Your task to perform on an android device: turn off sleep mode Image 0: 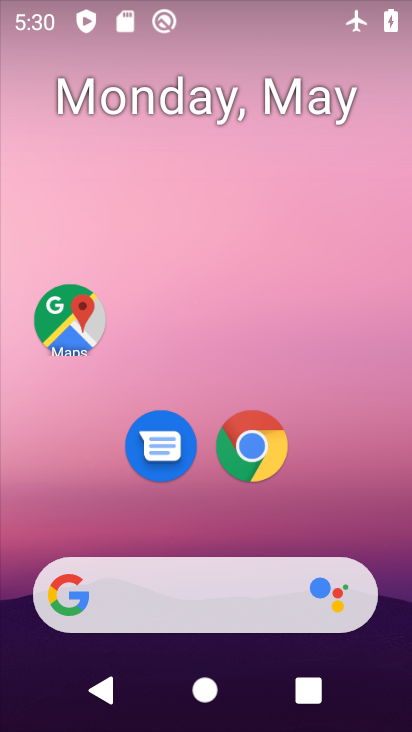
Step 0: drag from (332, 503) to (214, 132)
Your task to perform on an android device: turn off sleep mode Image 1: 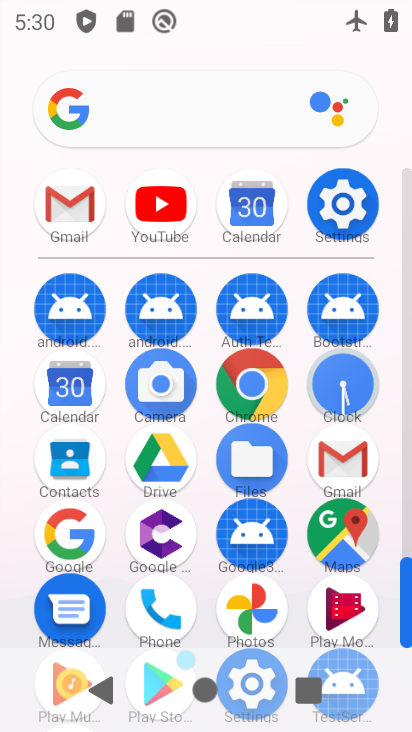
Step 1: click (338, 206)
Your task to perform on an android device: turn off sleep mode Image 2: 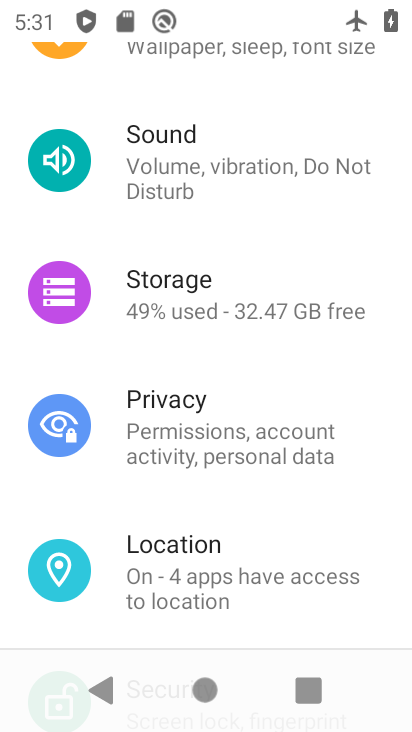
Step 2: click (164, 146)
Your task to perform on an android device: turn off sleep mode Image 3: 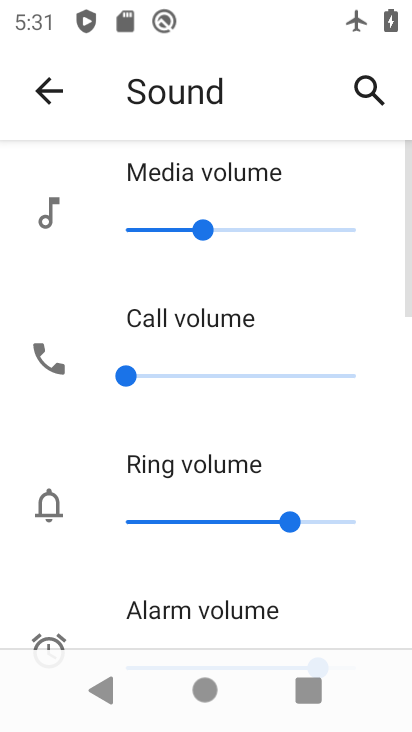
Step 3: task complete